Your task to perform on an android device: Go to Yahoo.com Image 0: 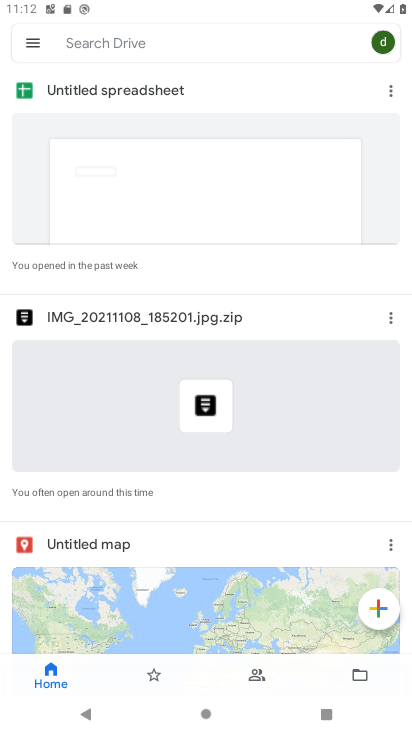
Step 0: press home button
Your task to perform on an android device: Go to Yahoo.com Image 1: 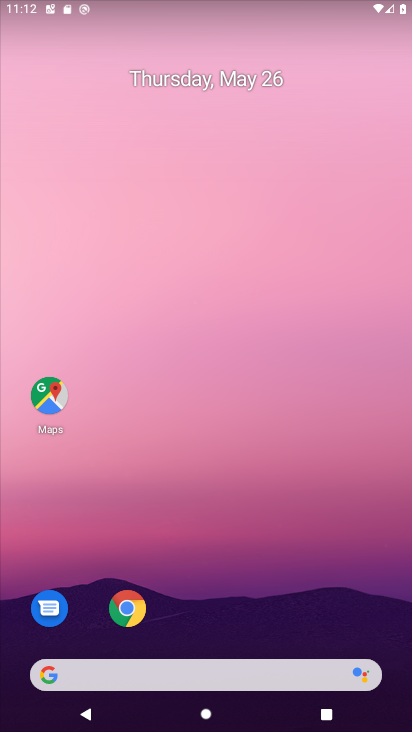
Step 1: click (127, 608)
Your task to perform on an android device: Go to Yahoo.com Image 2: 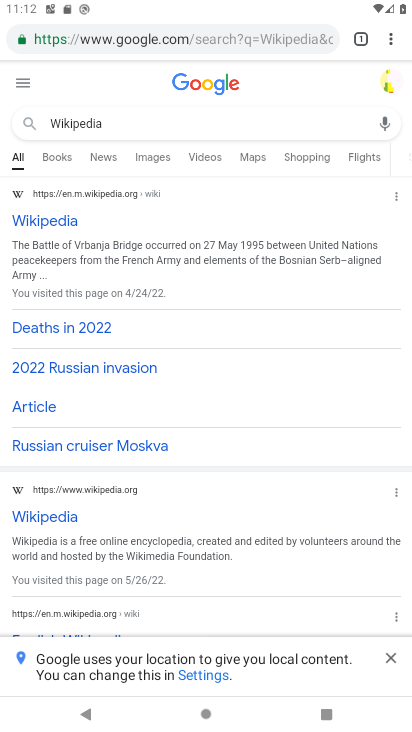
Step 2: click (329, 33)
Your task to perform on an android device: Go to Yahoo.com Image 3: 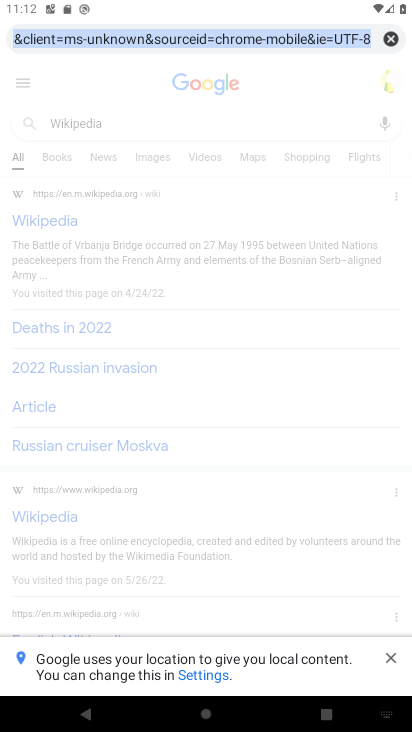
Step 3: click (383, 32)
Your task to perform on an android device: Go to Yahoo.com Image 4: 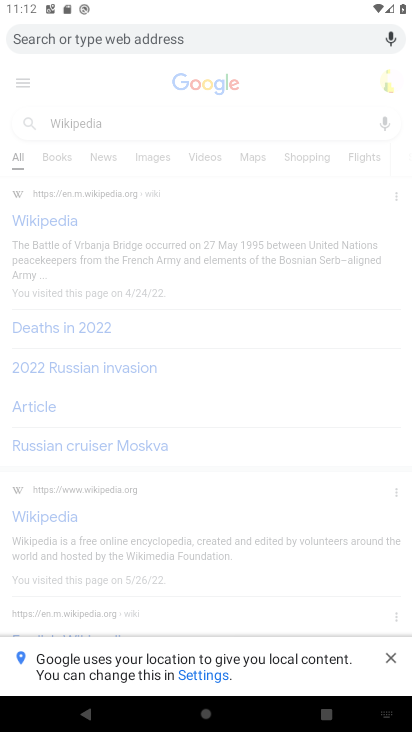
Step 4: type "Yahoo.com"
Your task to perform on an android device: Go to Yahoo.com Image 5: 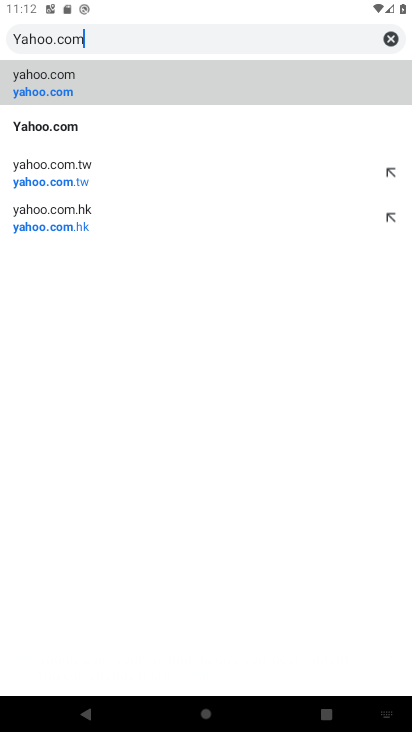
Step 5: click (58, 118)
Your task to perform on an android device: Go to Yahoo.com Image 6: 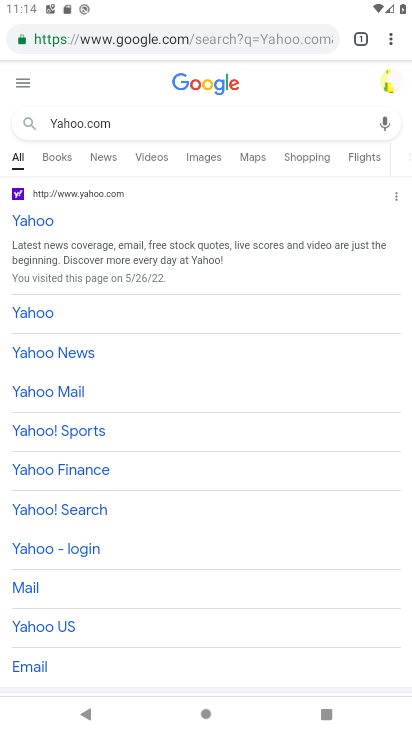
Step 6: task complete